Your task to perform on an android device: turn pop-ups on in chrome Image 0: 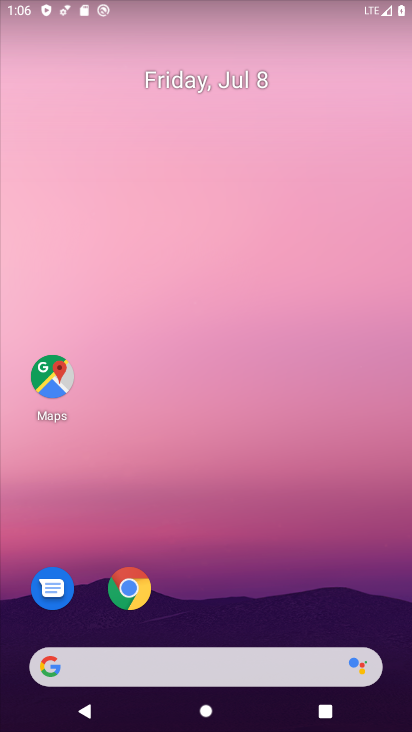
Step 0: click (121, 581)
Your task to perform on an android device: turn pop-ups on in chrome Image 1: 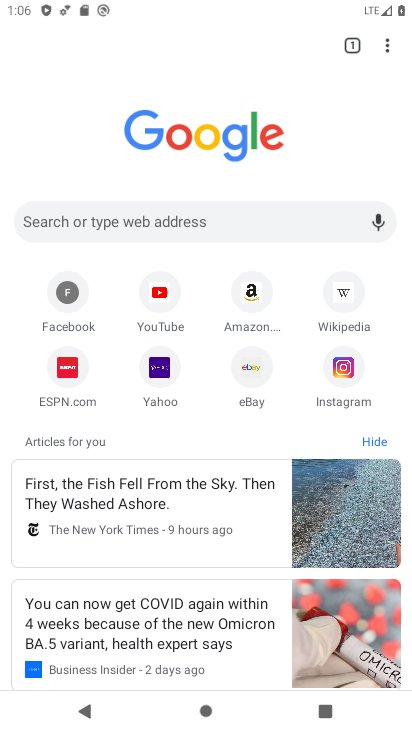
Step 1: click (387, 38)
Your task to perform on an android device: turn pop-ups on in chrome Image 2: 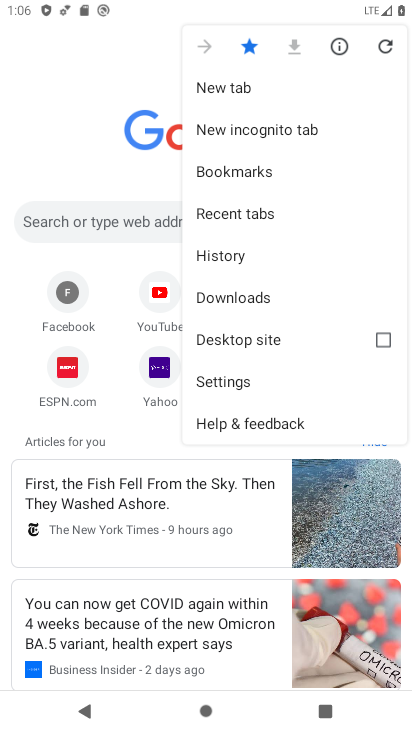
Step 2: click (235, 381)
Your task to perform on an android device: turn pop-ups on in chrome Image 3: 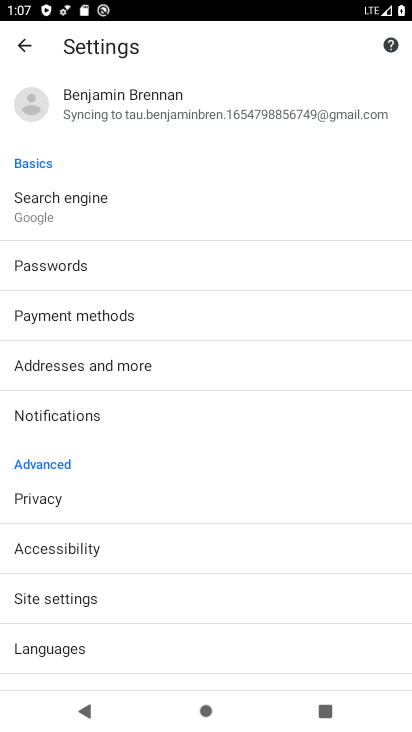
Step 3: drag from (111, 611) to (111, 531)
Your task to perform on an android device: turn pop-ups on in chrome Image 4: 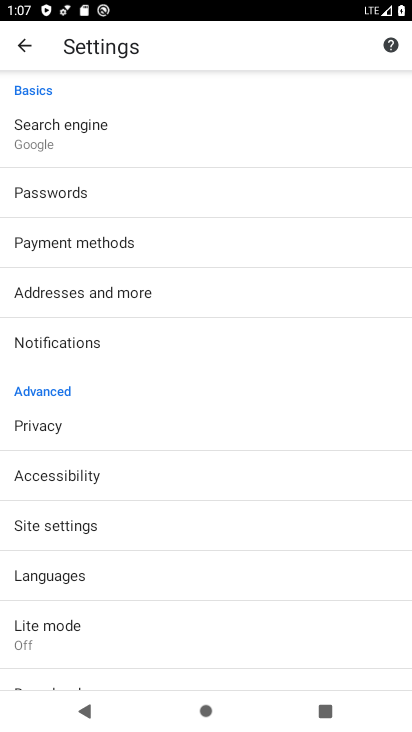
Step 4: click (74, 529)
Your task to perform on an android device: turn pop-ups on in chrome Image 5: 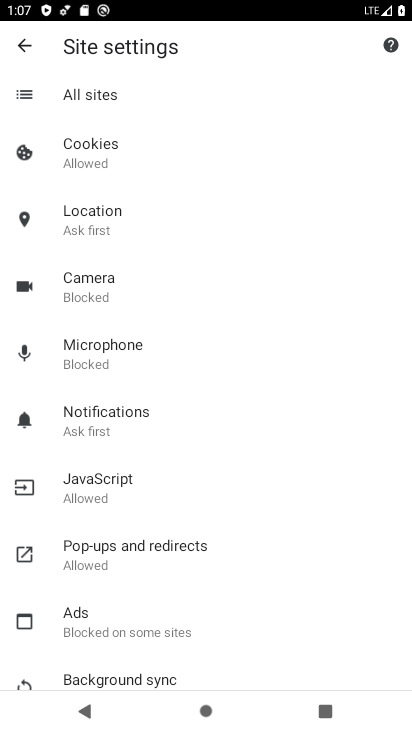
Step 5: click (99, 545)
Your task to perform on an android device: turn pop-ups on in chrome Image 6: 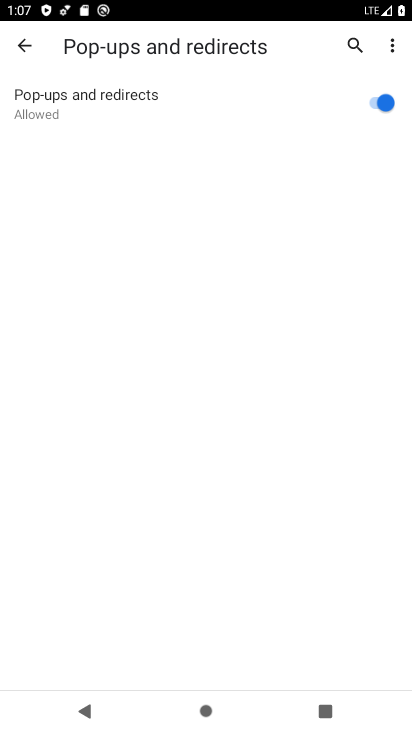
Step 6: task complete